Your task to perform on an android device: turn off location history Image 0: 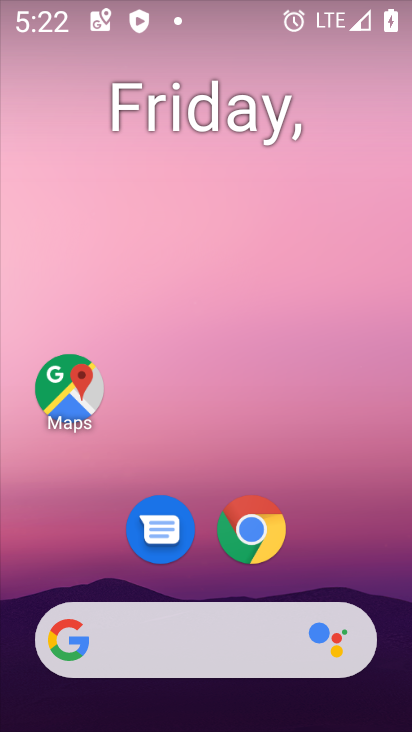
Step 0: drag from (331, 537) to (222, 64)
Your task to perform on an android device: turn off location history Image 1: 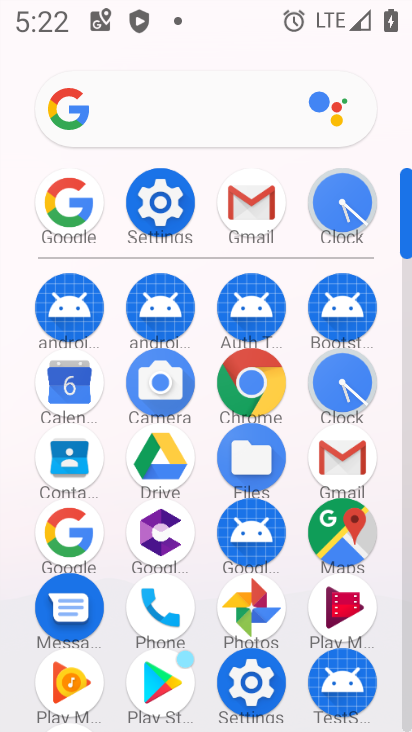
Step 1: click (144, 197)
Your task to perform on an android device: turn off location history Image 2: 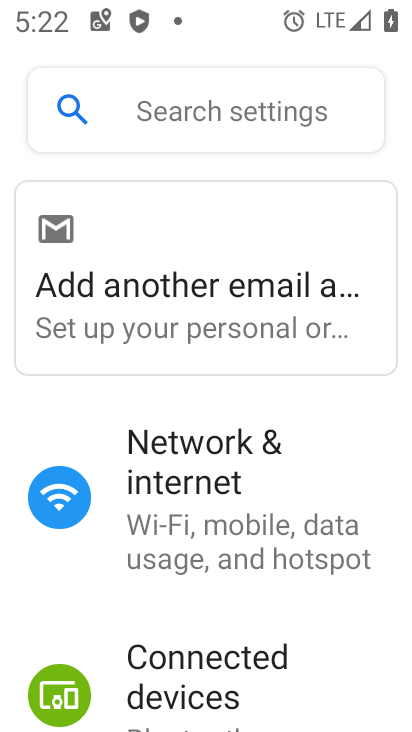
Step 2: drag from (315, 646) to (255, 147)
Your task to perform on an android device: turn off location history Image 3: 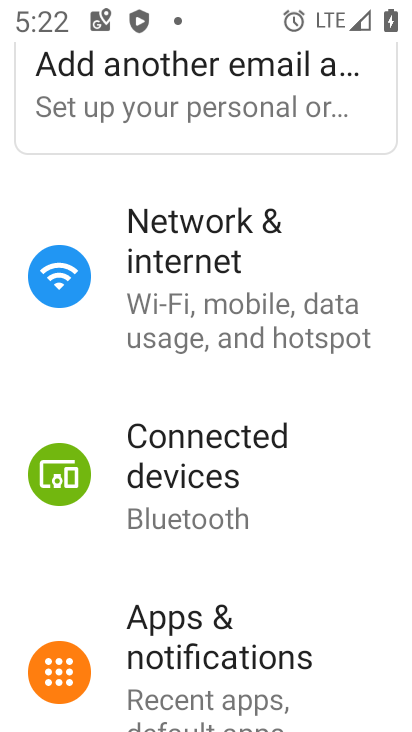
Step 3: drag from (358, 598) to (270, 119)
Your task to perform on an android device: turn off location history Image 4: 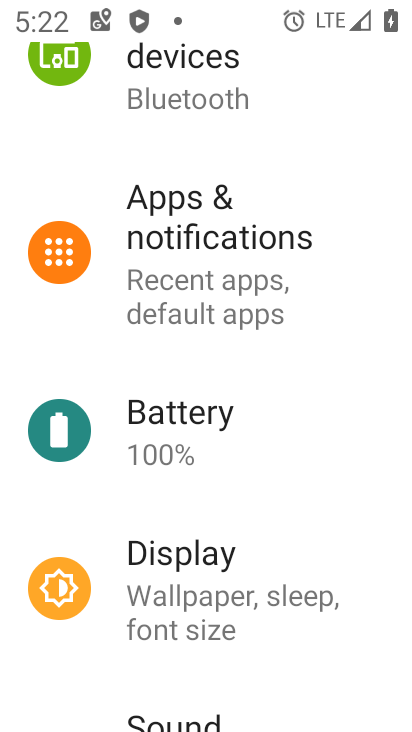
Step 4: drag from (262, 543) to (246, 244)
Your task to perform on an android device: turn off location history Image 5: 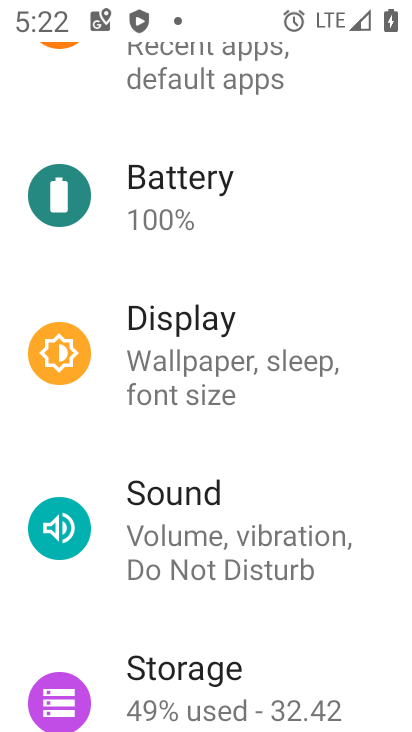
Step 5: drag from (272, 622) to (212, 140)
Your task to perform on an android device: turn off location history Image 6: 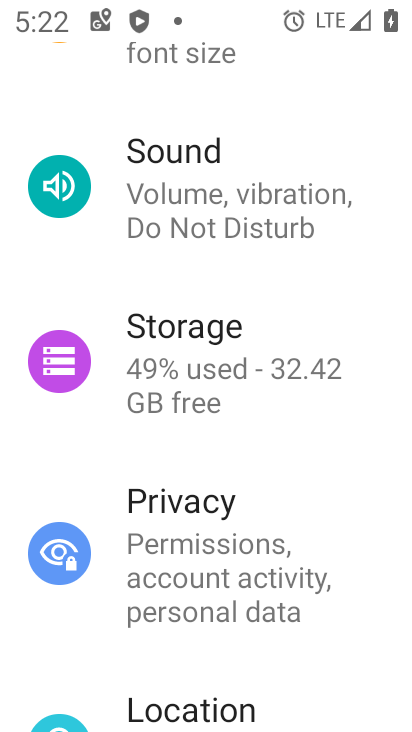
Step 6: click (215, 705)
Your task to perform on an android device: turn off location history Image 7: 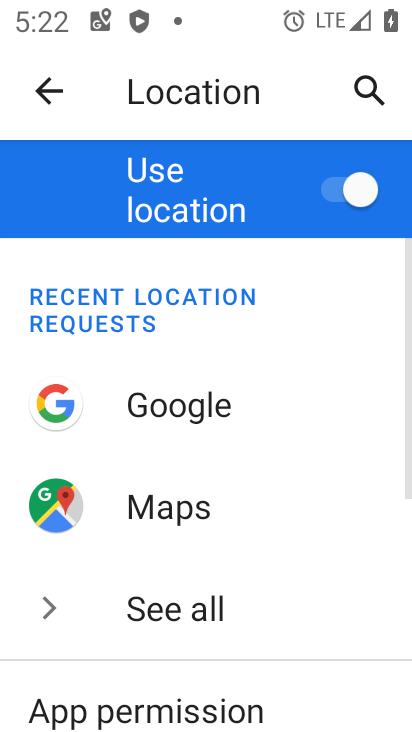
Step 7: drag from (277, 562) to (239, 173)
Your task to perform on an android device: turn off location history Image 8: 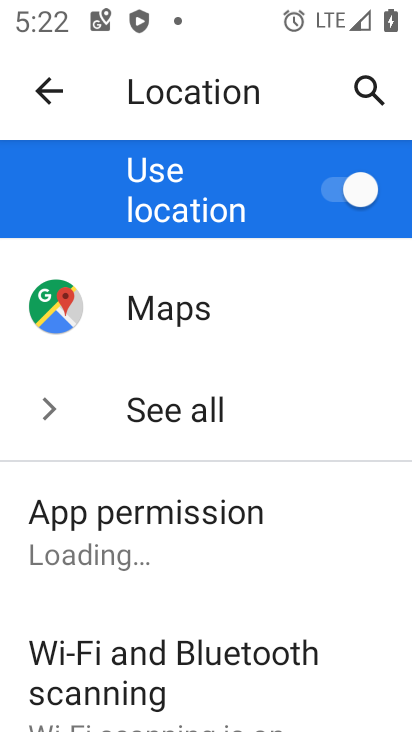
Step 8: drag from (253, 635) to (223, 122)
Your task to perform on an android device: turn off location history Image 9: 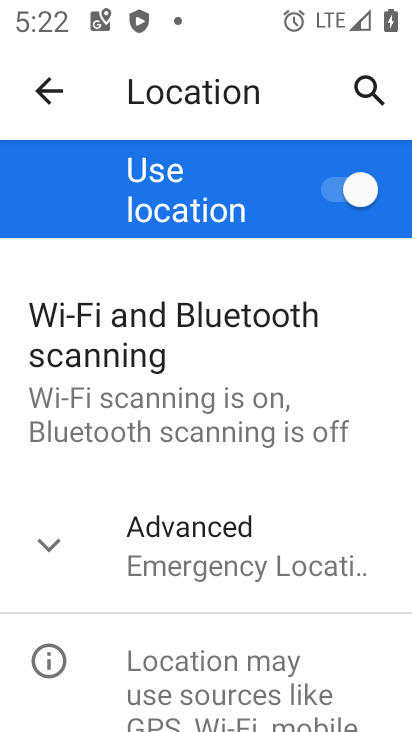
Step 9: click (221, 533)
Your task to perform on an android device: turn off location history Image 10: 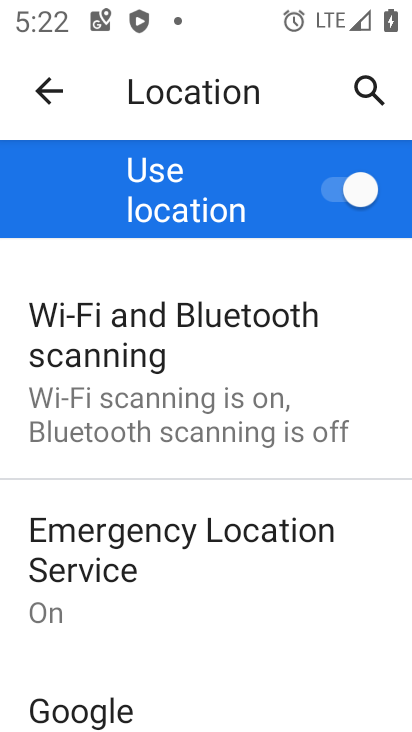
Step 10: drag from (233, 648) to (240, 187)
Your task to perform on an android device: turn off location history Image 11: 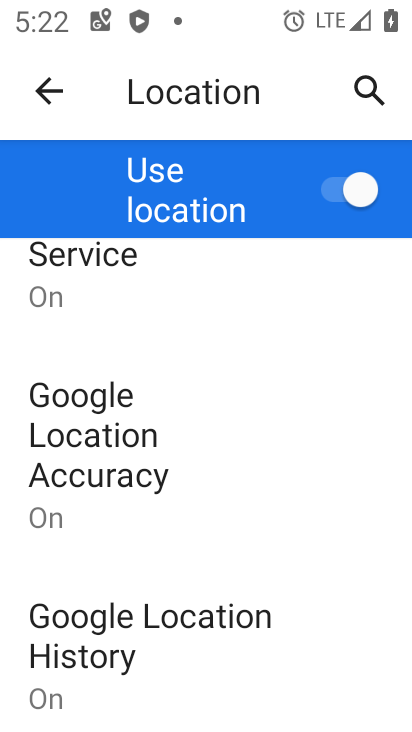
Step 11: drag from (201, 674) to (201, 281)
Your task to perform on an android device: turn off location history Image 12: 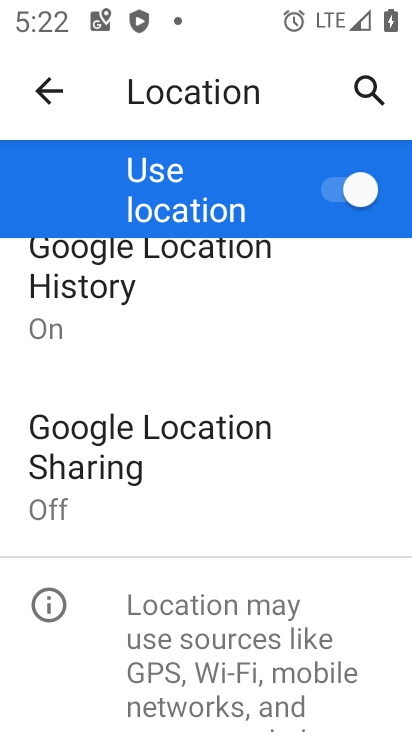
Step 12: click (122, 282)
Your task to perform on an android device: turn off location history Image 13: 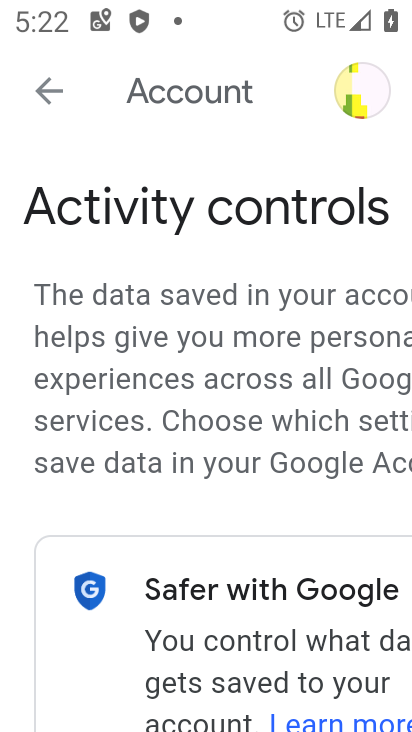
Step 13: drag from (226, 569) to (206, 125)
Your task to perform on an android device: turn off location history Image 14: 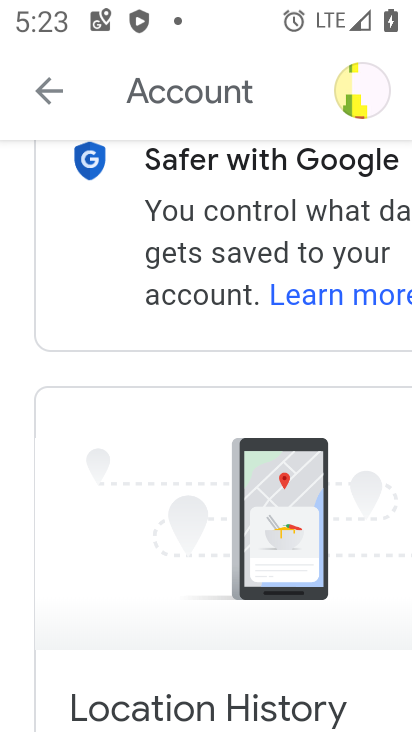
Step 14: drag from (215, 688) to (215, 70)
Your task to perform on an android device: turn off location history Image 15: 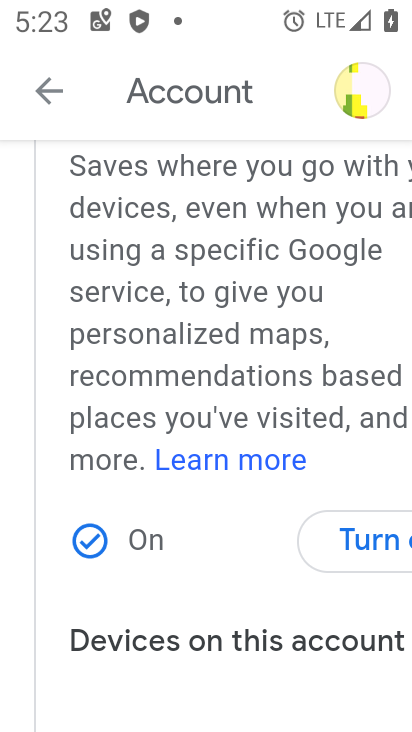
Step 15: click (358, 541)
Your task to perform on an android device: turn off location history Image 16: 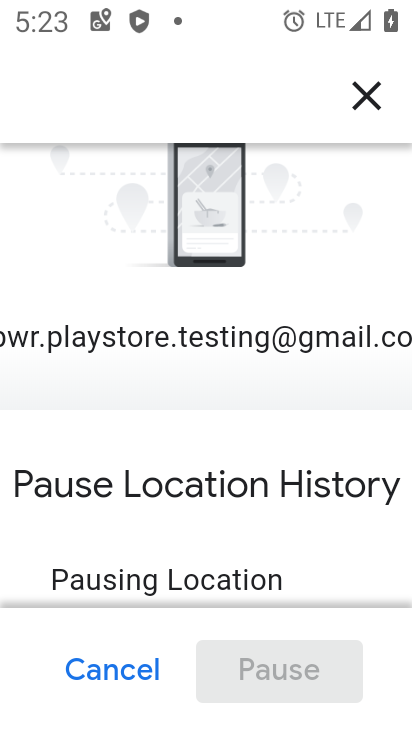
Step 16: drag from (285, 589) to (251, 113)
Your task to perform on an android device: turn off location history Image 17: 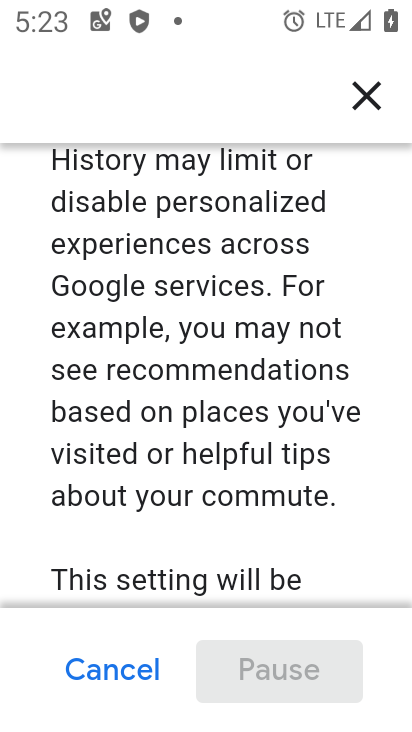
Step 17: drag from (266, 551) to (239, 70)
Your task to perform on an android device: turn off location history Image 18: 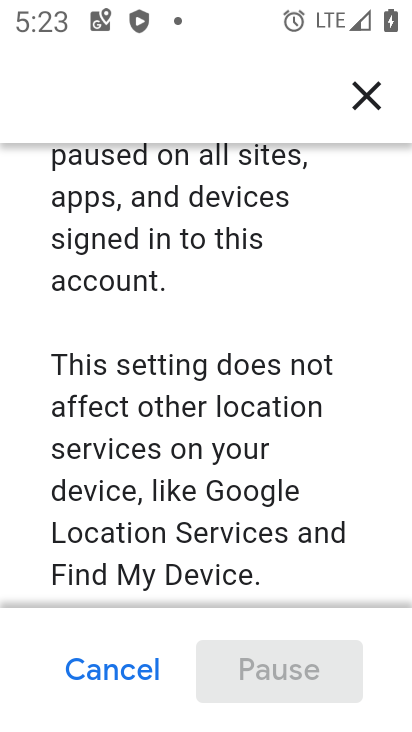
Step 18: drag from (292, 544) to (254, 92)
Your task to perform on an android device: turn off location history Image 19: 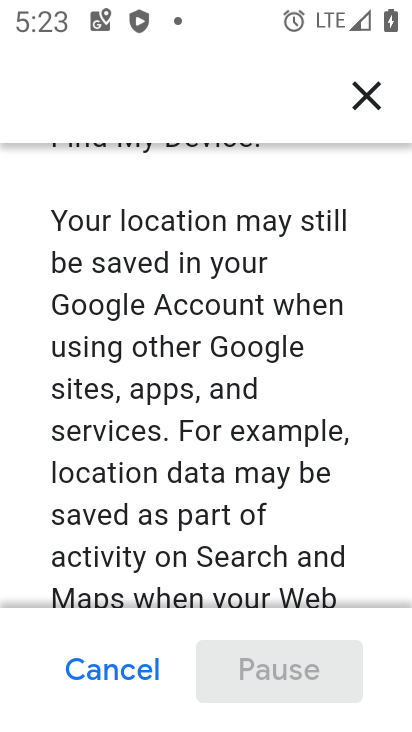
Step 19: drag from (276, 573) to (253, 34)
Your task to perform on an android device: turn off location history Image 20: 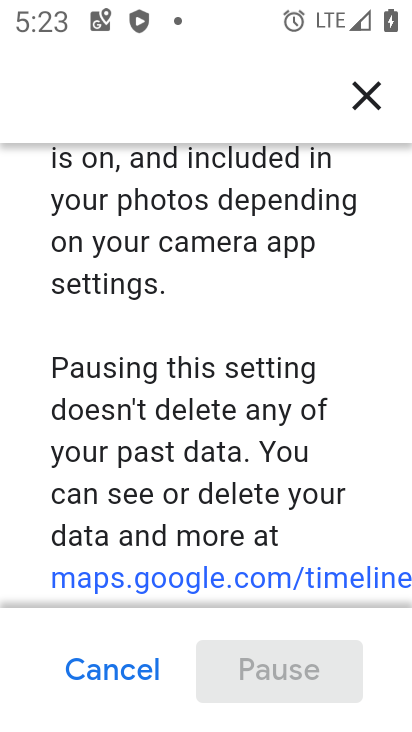
Step 20: drag from (269, 530) to (199, 77)
Your task to perform on an android device: turn off location history Image 21: 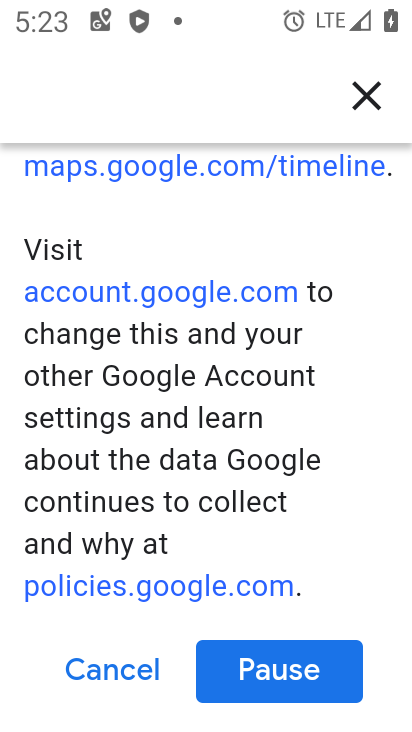
Step 21: click (300, 682)
Your task to perform on an android device: turn off location history Image 22: 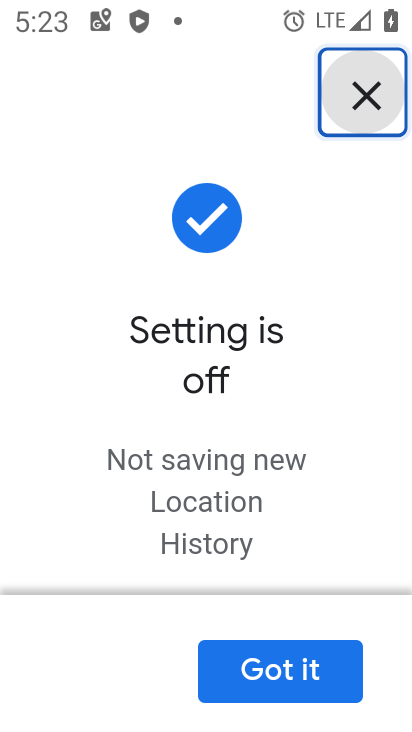
Step 22: click (295, 666)
Your task to perform on an android device: turn off location history Image 23: 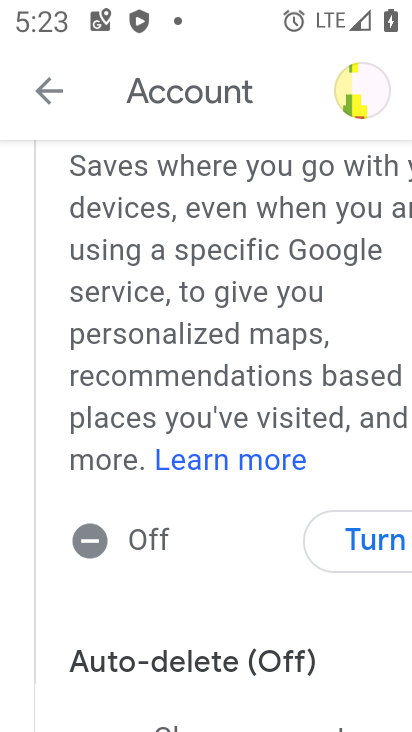
Step 23: task complete